Your task to perform on an android device: turn notification dots on Image 0: 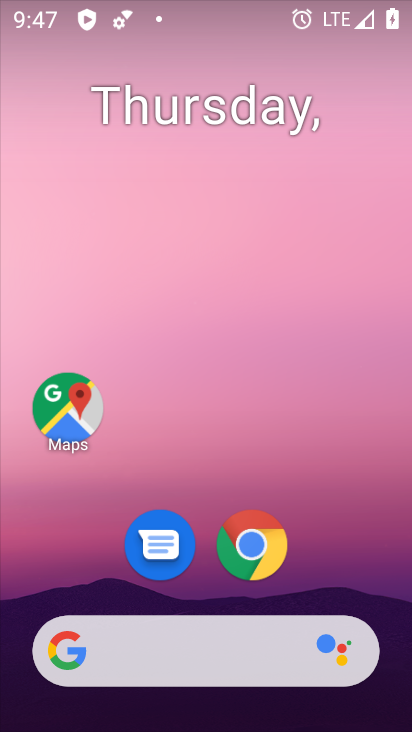
Step 0: drag from (347, 560) to (287, 182)
Your task to perform on an android device: turn notification dots on Image 1: 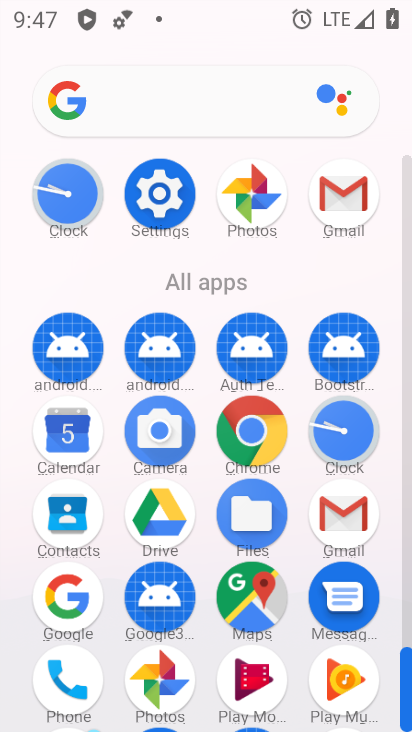
Step 1: click (155, 195)
Your task to perform on an android device: turn notification dots on Image 2: 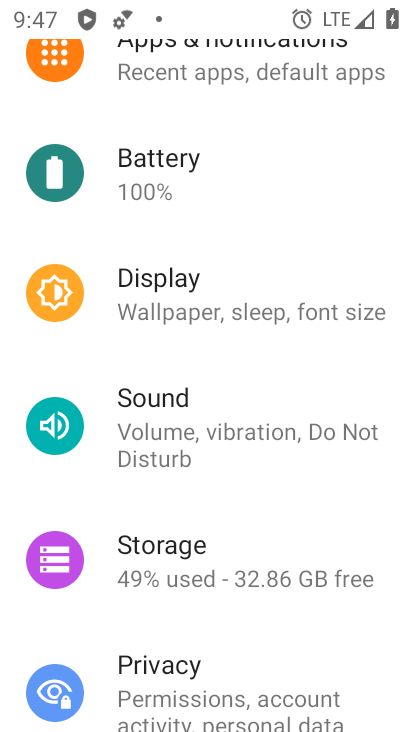
Step 2: drag from (199, 216) to (206, 712)
Your task to perform on an android device: turn notification dots on Image 3: 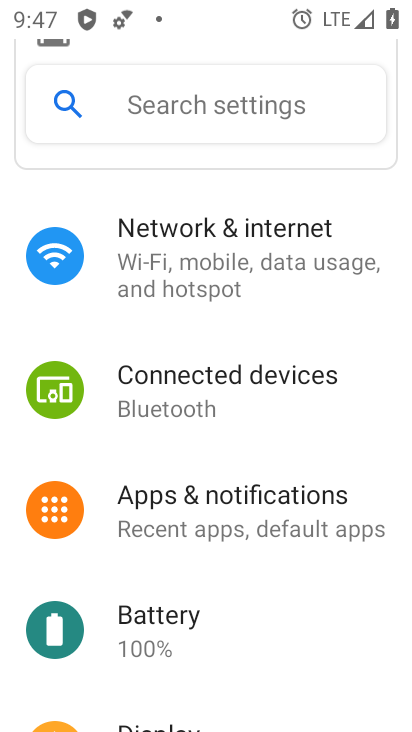
Step 3: click (284, 495)
Your task to perform on an android device: turn notification dots on Image 4: 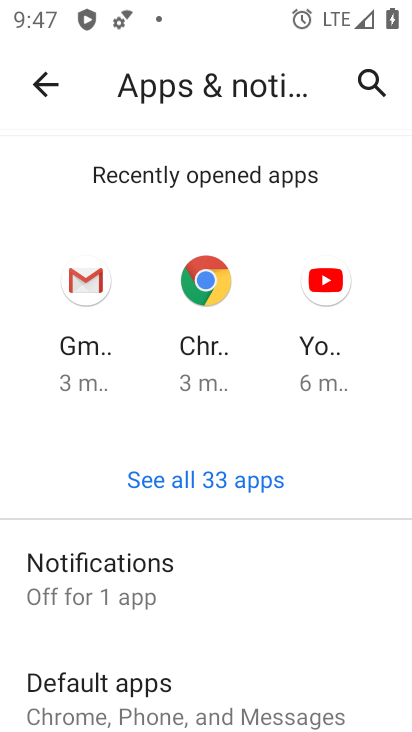
Step 4: drag from (223, 610) to (174, 291)
Your task to perform on an android device: turn notification dots on Image 5: 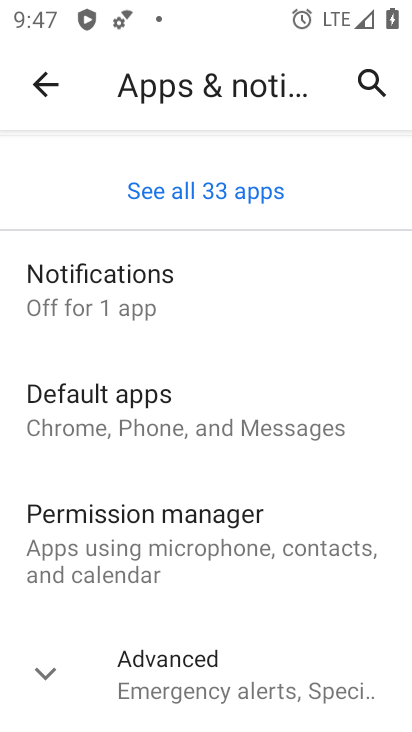
Step 5: click (104, 275)
Your task to perform on an android device: turn notification dots on Image 6: 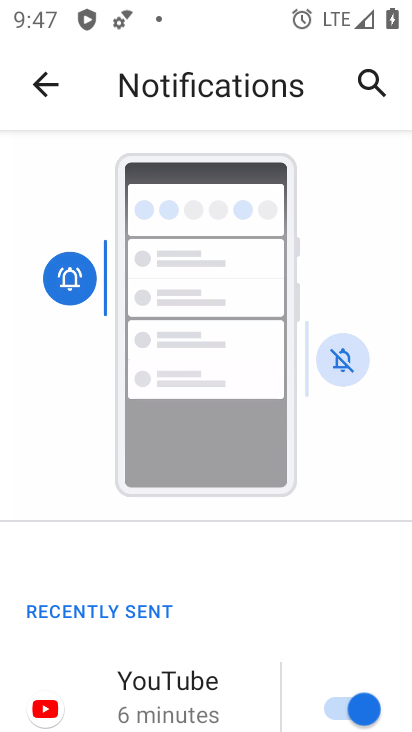
Step 6: drag from (216, 620) to (165, 230)
Your task to perform on an android device: turn notification dots on Image 7: 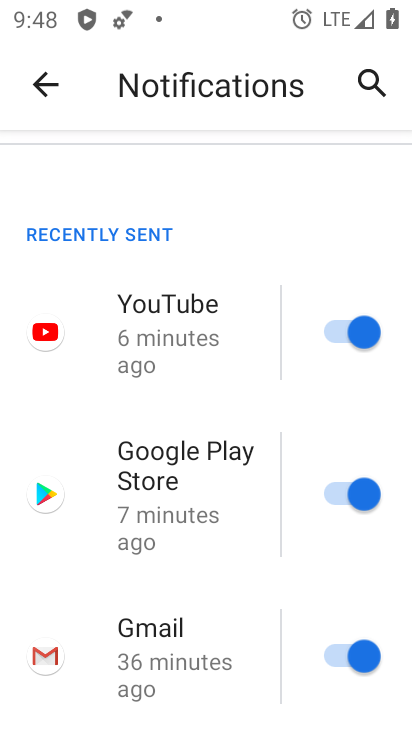
Step 7: drag from (225, 524) to (173, 201)
Your task to perform on an android device: turn notification dots on Image 8: 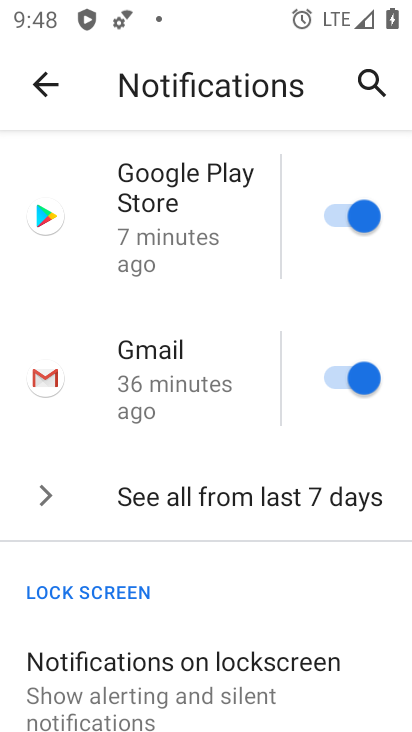
Step 8: drag from (198, 583) to (153, 267)
Your task to perform on an android device: turn notification dots on Image 9: 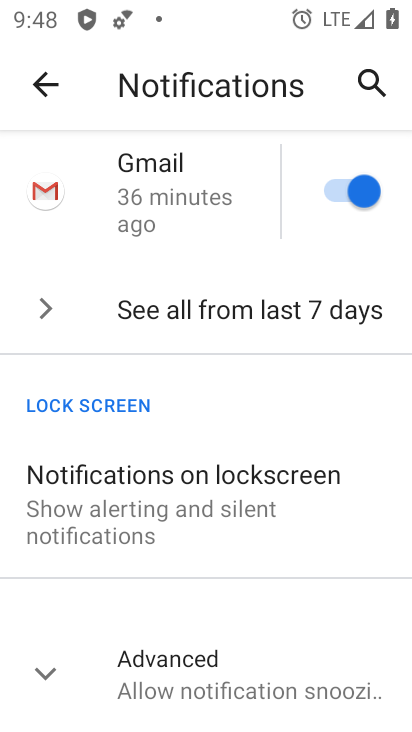
Step 9: click (125, 669)
Your task to perform on an android device: turn notification dots on Image 10: 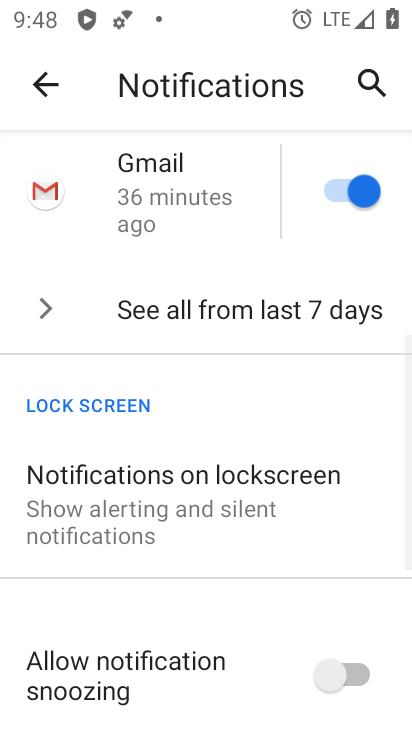
Step 10: task complete